Your task to perform on an android device: turn off notifications settings in the gmail app Image 0: 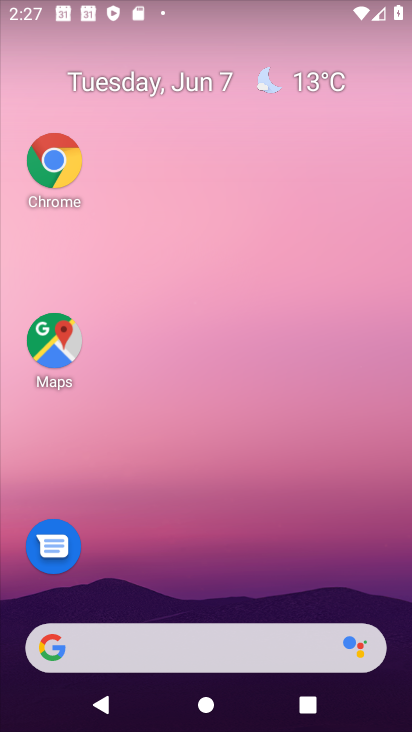
Step 0: click (340, 45)
Your task to perform on an android device: turn off notifications settings in the gmail app Image 1: 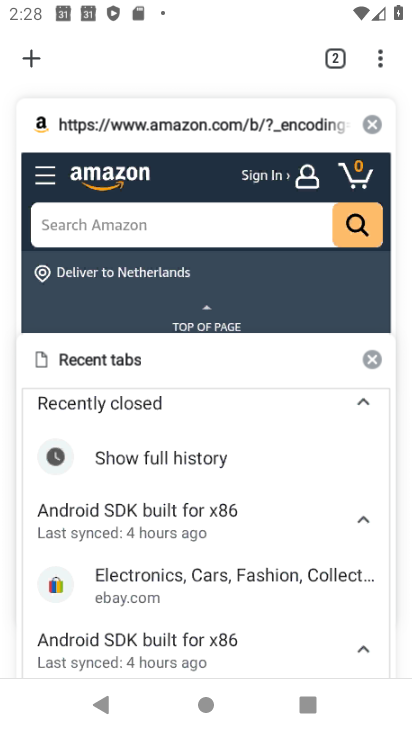
Step 1: click (261, 440)
Your task to perform on an android device: turn off notifications settings in the gmail app Image 2: 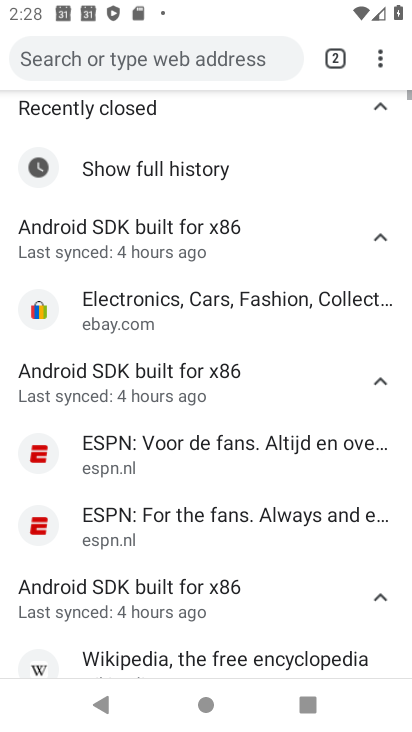
Step 2: drag from (243, 559) to (261, 141)
Your task to perform on an android device: turn off notifications settings in the gmail app Image 3: 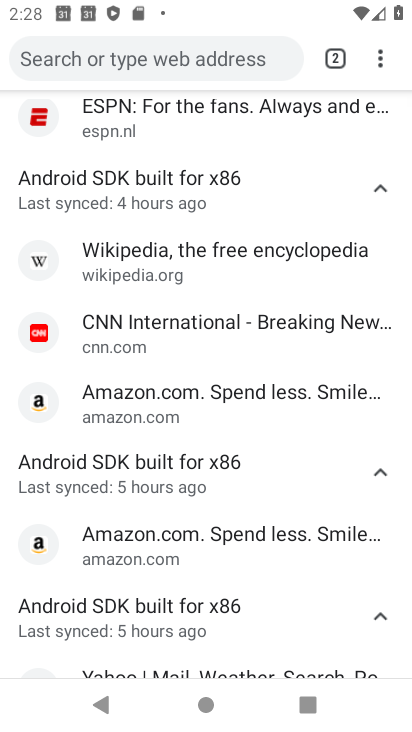
Step 3: click (375, 47)
Your task to perform on an android device: turn off notifications settings in the gmail app Image 4: 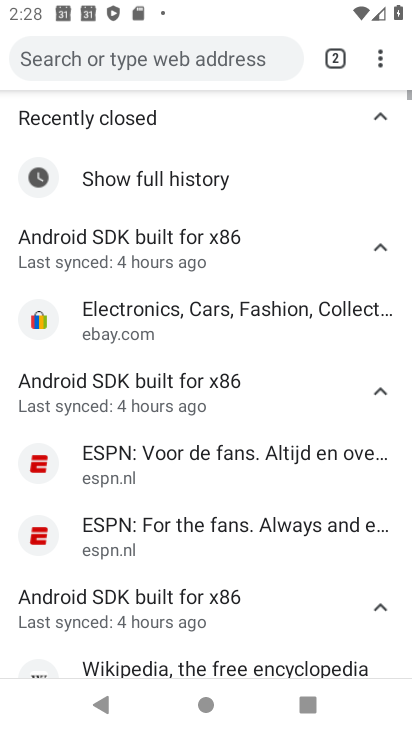
Step 4: drag from (381, 56) to (208, 501)
Your task to perform on an android device: turn off notifications settings in the gmail app Image 5: 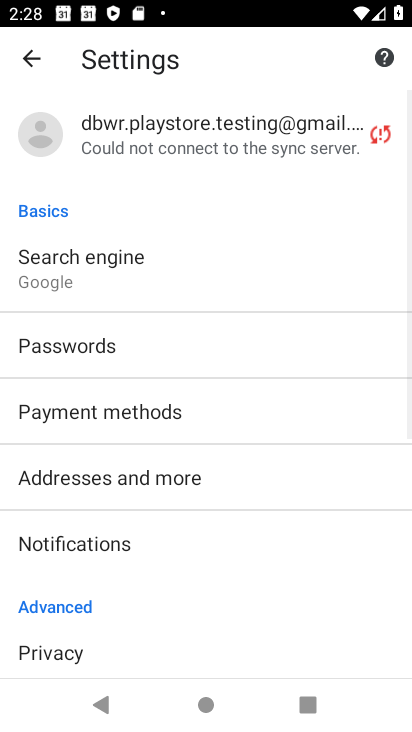
Step 5: drag from (221, 639) to (306, 132)
Your task to perform on an android device: turn off notifications settings in the gmail app Image 6: 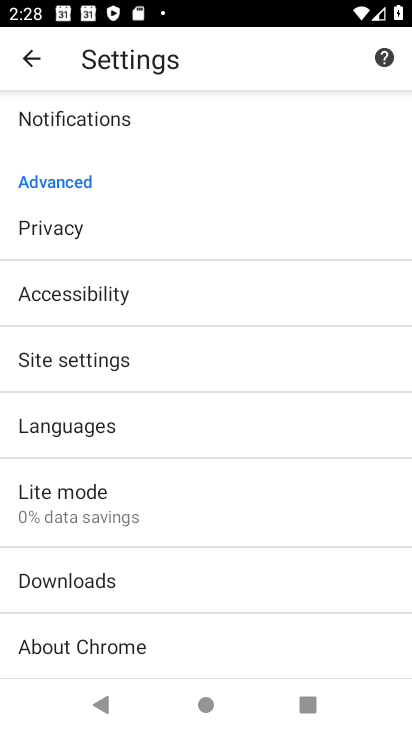
Step 6: click (187, 335)
Your task to perform on an android device: turn off notifications settings in the gmail app Image 7: 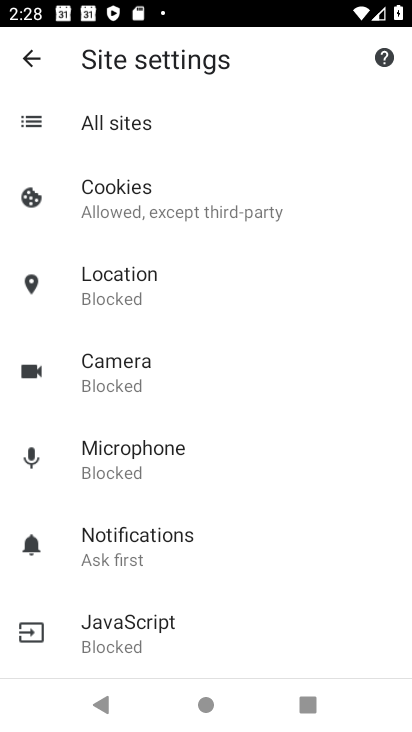
Step 7: click (161, 549)
Your task to perform on an android device: turn off notifications settings in the gmail app Image 8: 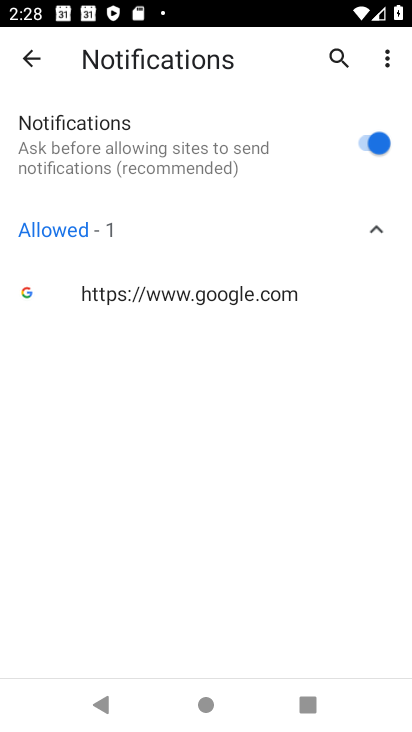
Step 8: click (373, 131)
Your task to perform on an android device: turn off notifications settings in the gmail app Image 9: 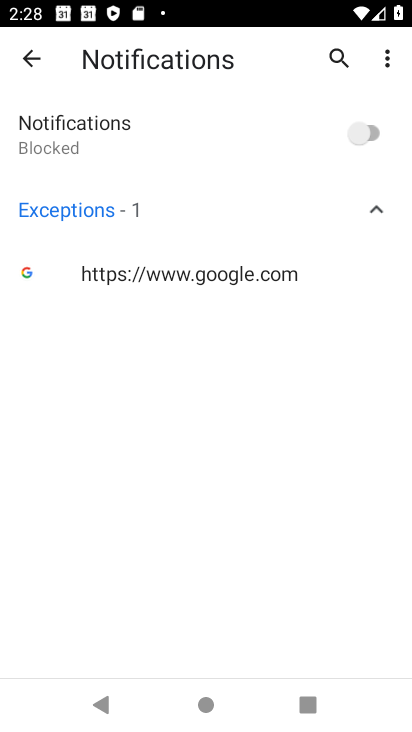
Step 9: task complete